Your task to perform on an android device: set the timer Image 0: 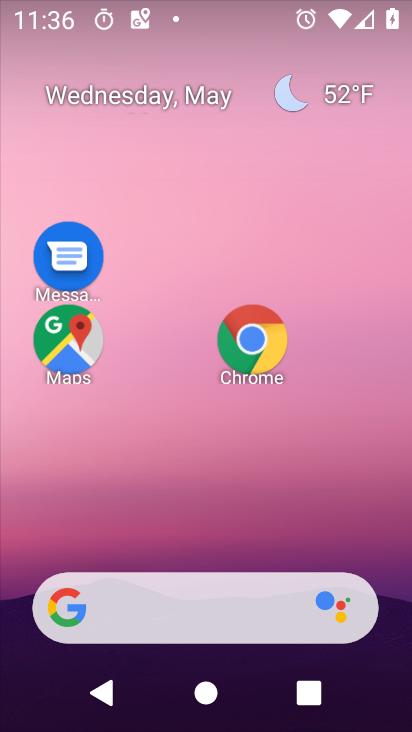
Step 0: drag from (196, 511) to (178, 54)
Your task to perform on an android device: set the timer Image 1: 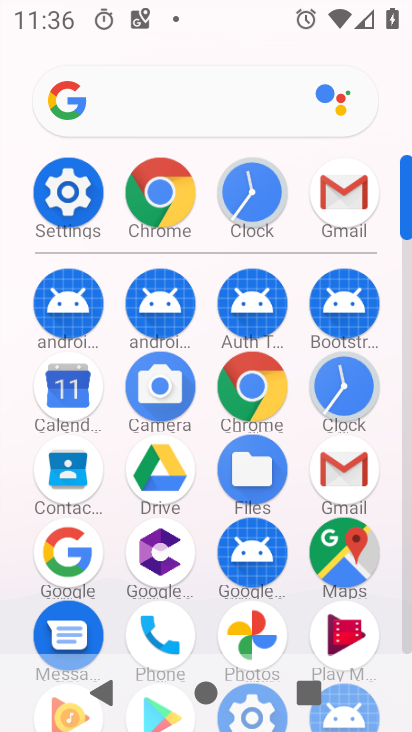
Step 1: click (345, 383)
Your task to perform on an android device: set the timer Image 2: 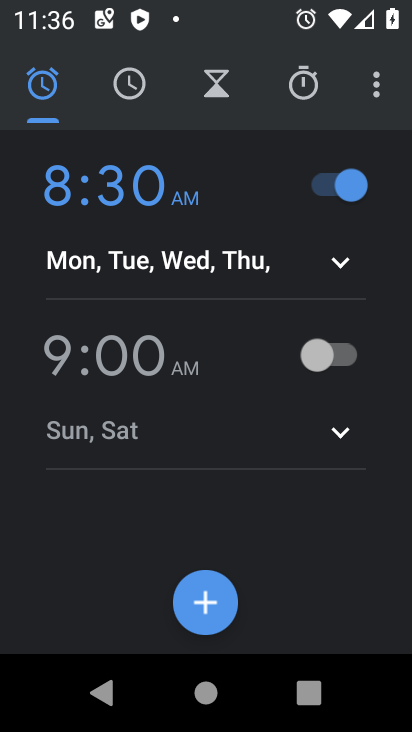
Step 2: click (215, 86)
Your task to perform on an android device: set the timer Image 3: 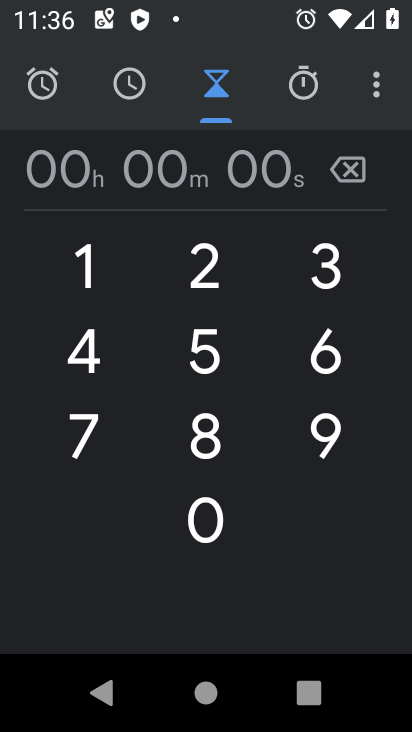
Step 3: click (198, 252)
Your task to perform on an android device: set the timer Image 4: 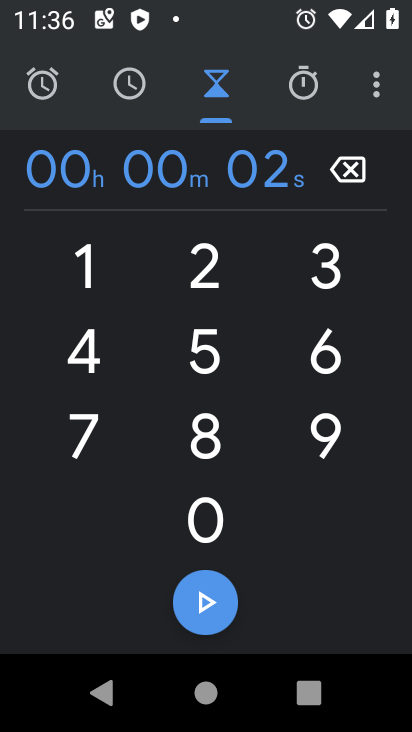
Step 4: click (198, 252)
Your task to perform on an android device: set the timer Image 5: 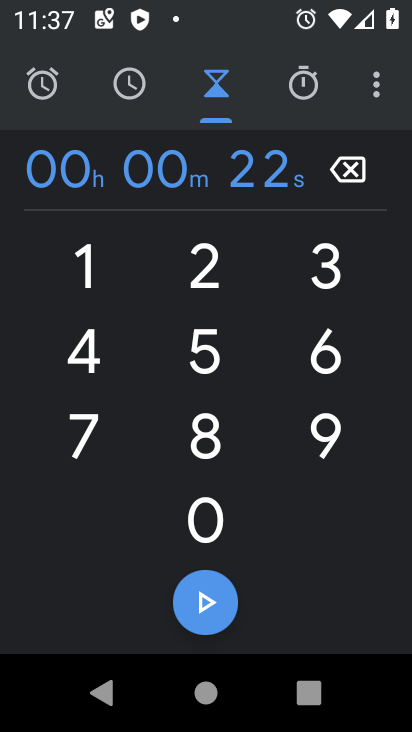
Step 5: task complete